Your task to perform on an android device: check data usage Image 0: 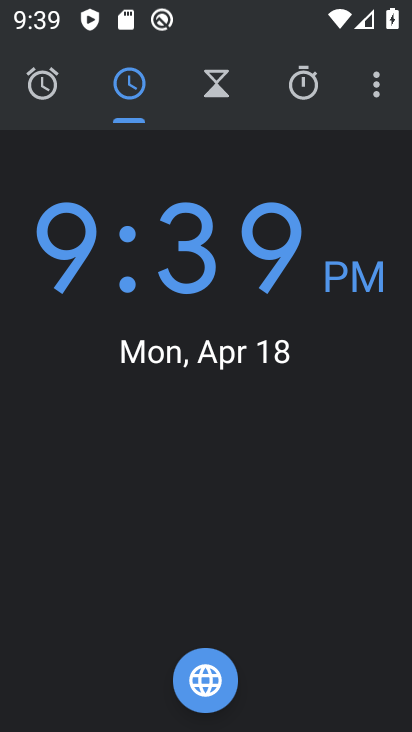
Step 0: press home button
Your task to perform on an android device: check data usage Image 1: 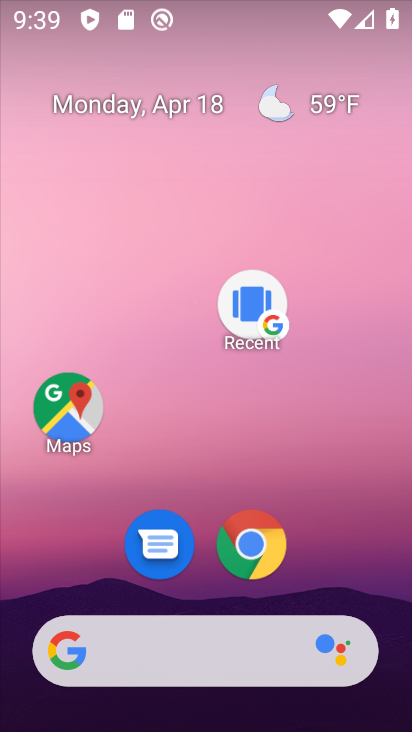
Step 1: drag from (372, 561) to (330, 130)
Your task to perform on an android device: check data usage Image 2: 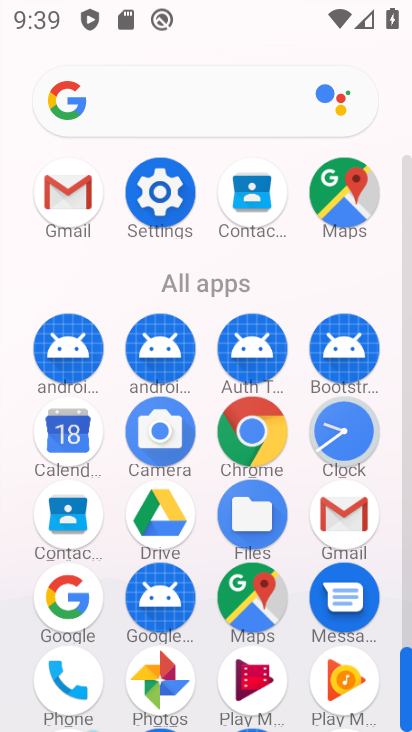
Step 2: click (159, 214)
Your task to perform on an android device: check data usage Image 3: 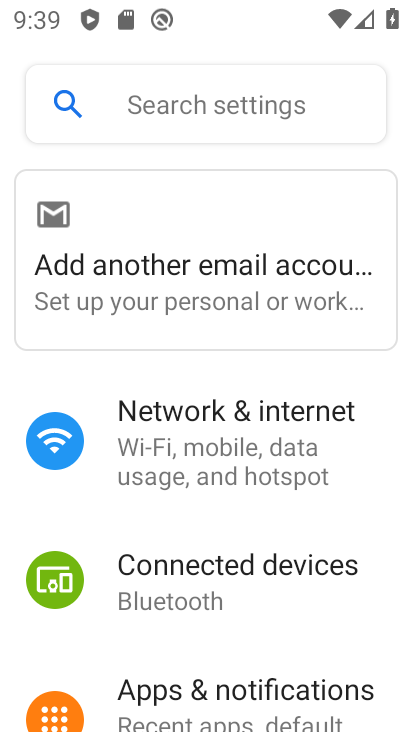
Step 3: click (276, 474)
Your task to perform on an android device: check data usage Image 4: 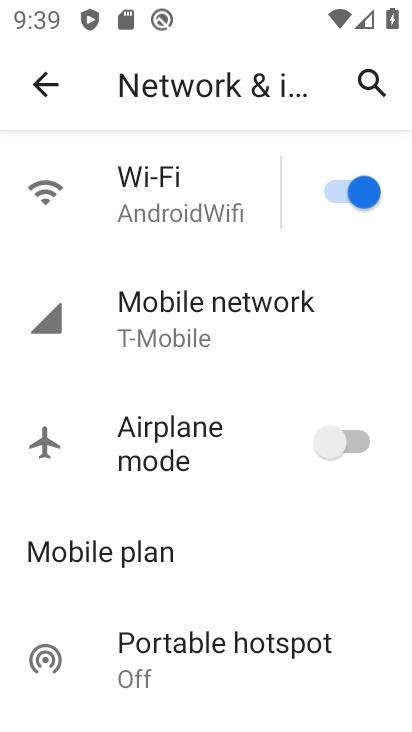
Step 4: drag from (290, 578) to (245, 184)
Your task to perform on an android device: check data usage Image 5: 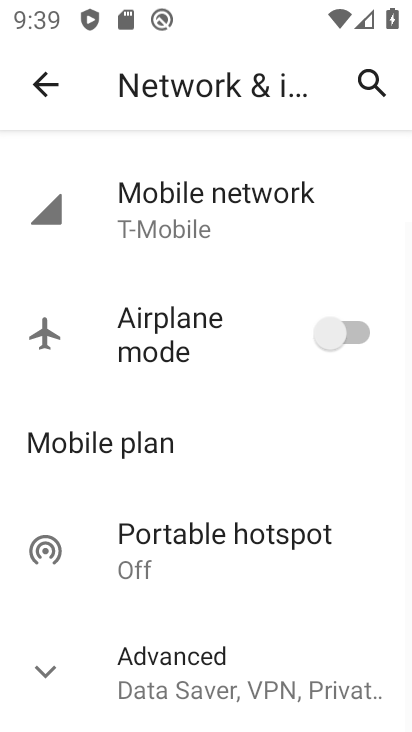
Step 5: drag from (245, 184) to (267, 544)
Your task to perform on an android device: check data usage Image 6: 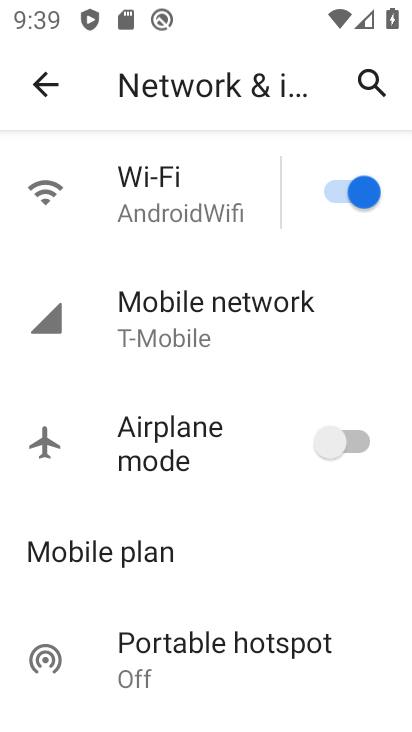
Step 6: click (236, 211)
Your task to perform on an android device: check data usage Image 7: 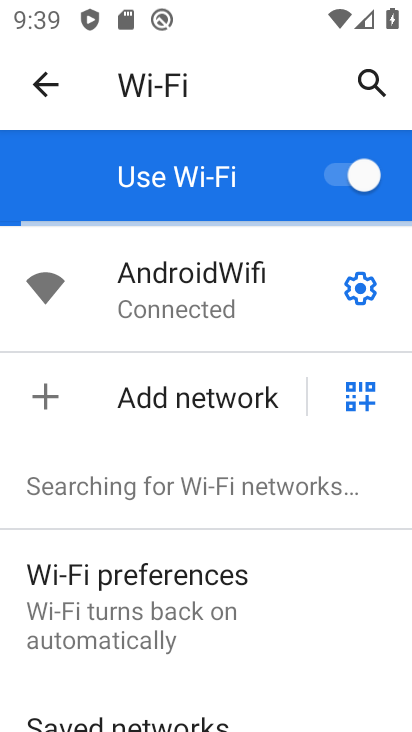
Step 7: drag from (224, 582) to (202, 182)
Your task to perform on an android device: check data usage Image 8: 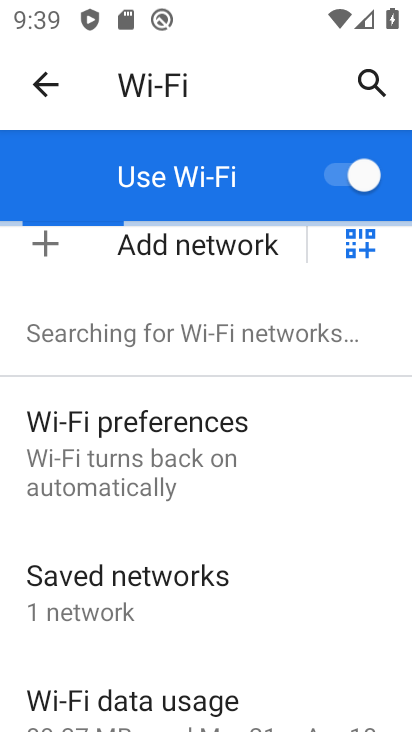
Step 8: drag from (221, 622) to (257, 247)
Your task to perform on an android device: check data usage Image 9: 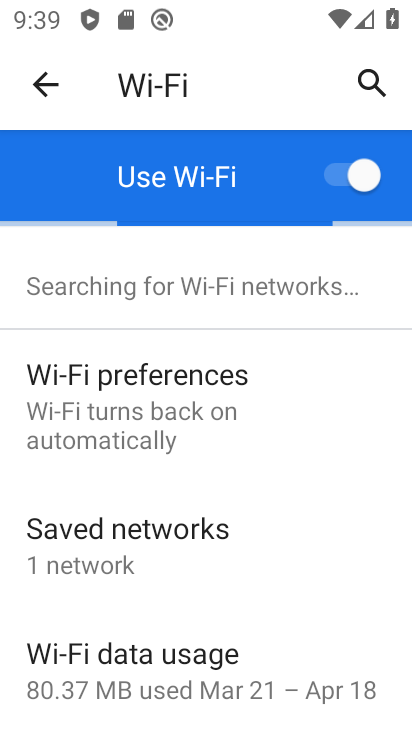
Step 9: click (199, 647)
Your task to perform on an android device: check data usage Image 10: 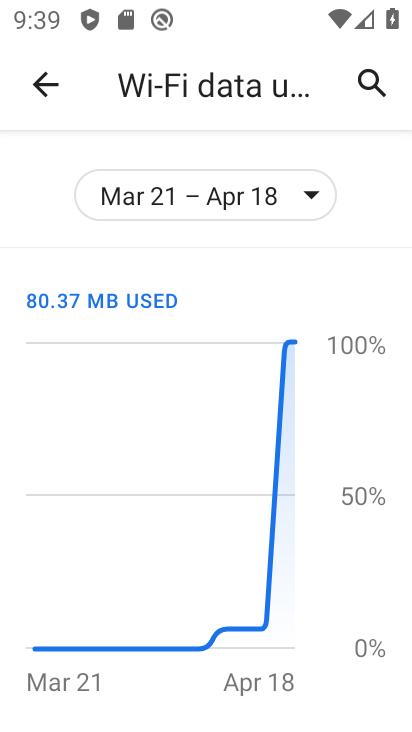
Step 10: task complete